Your task to perform on an android device: turn off improve location accuracy Image 0: 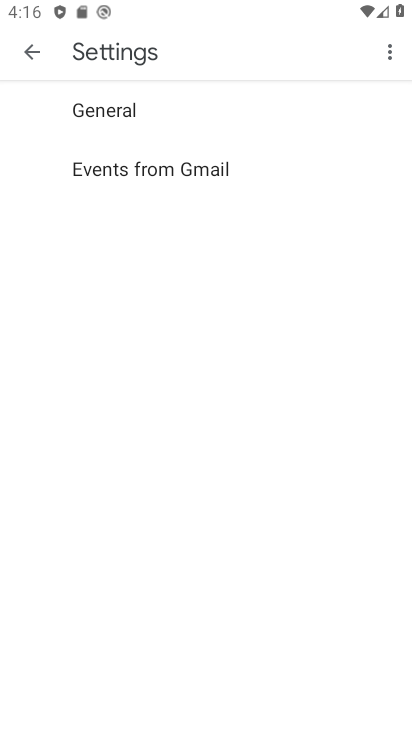
Step 0: press home button
Your task to perform on an android device: turn off improve location accuracy Image 1: 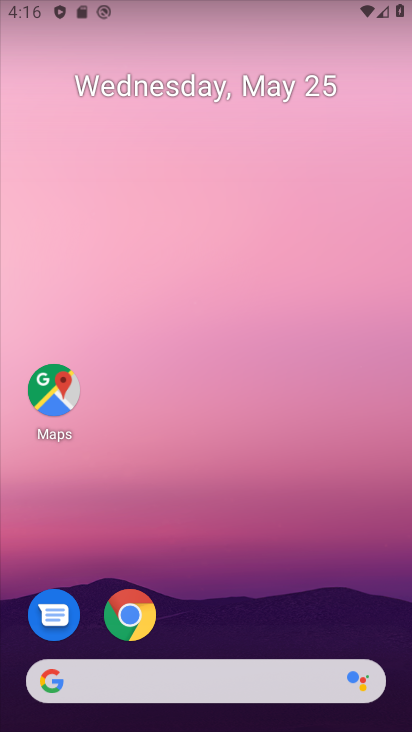
Step 1: drag from (244, 628) to (182, 71)
Your task to perform on an android device: turn off improve location accuracy Image 2: 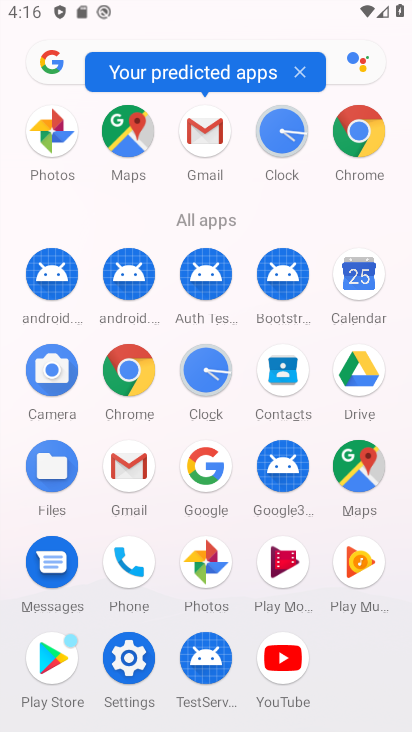
Step 2: click (138, 647)
Your task to perform on an android device: turn off improve location accuracy Image 3: 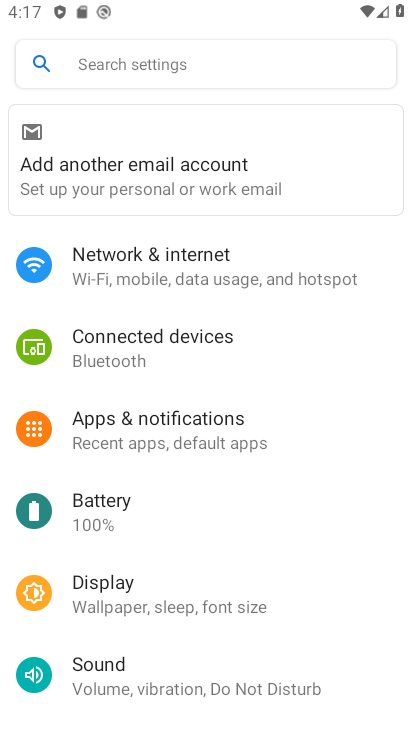
Step 3: drag from (221, 620) to (261, 189)
Your task to perform on an android device: turn off improve location accuracy Image 4: 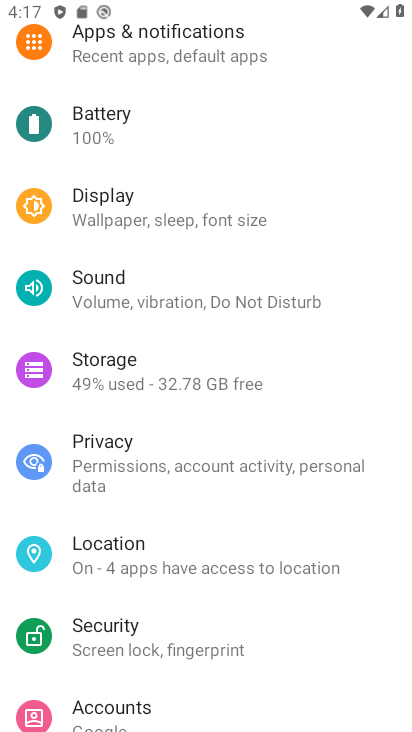
Step 4: click (183, 567)
Your task to perform on an android device: turn off improve location accuracy Image 5: 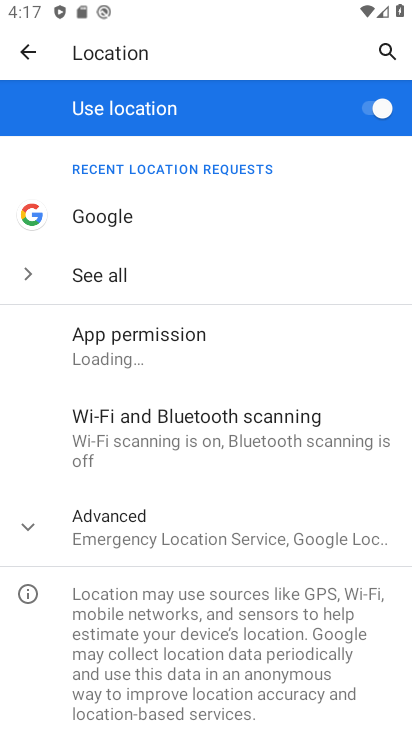
Step 5: click (164, 529)
Your task to perform on an android device: turn off improve location accuracy Image 6: 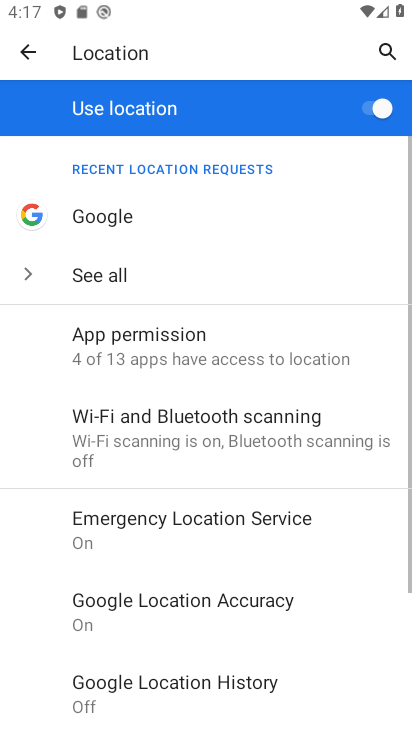
Step 6: click (160, 587)
Your task to perform on an android device: turn off improve location accuracy Image 7: 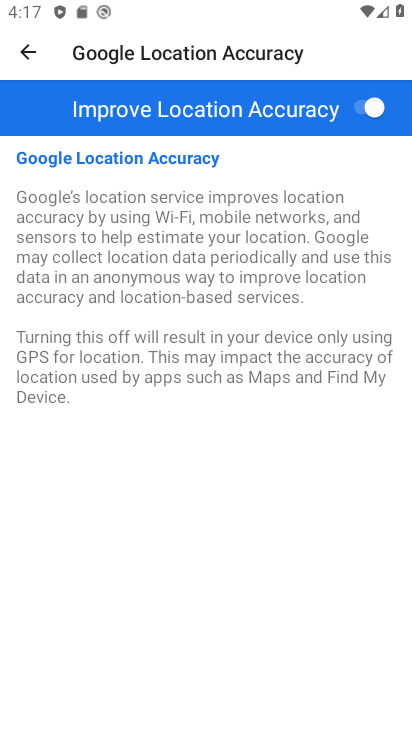
Step 7: click (337, 98)
Your task to perform on an android device: turn off improve location accuracy Image 8: 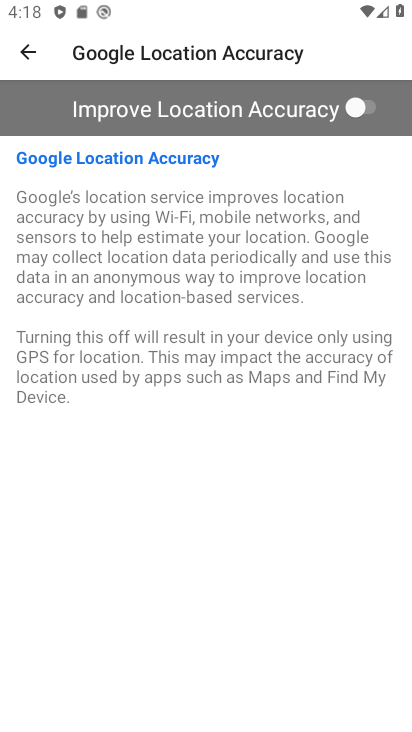
Step 8: task complete